Your task to perform on an android device: Open Reddit.com Image 0: 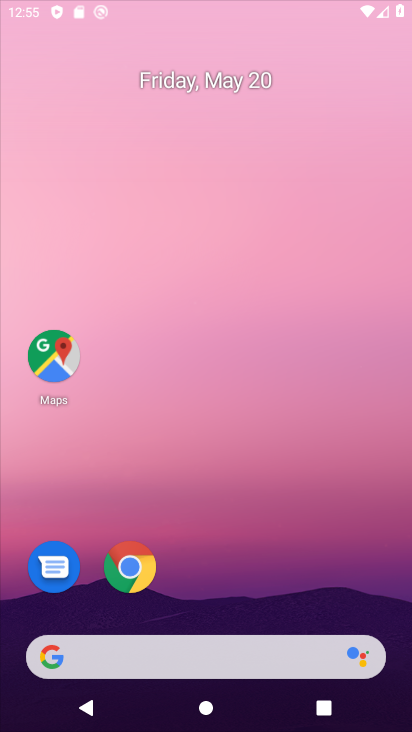
Step 0: click (260, 77)
Your task to perform on an android device: Open Reddit.com Image 1: 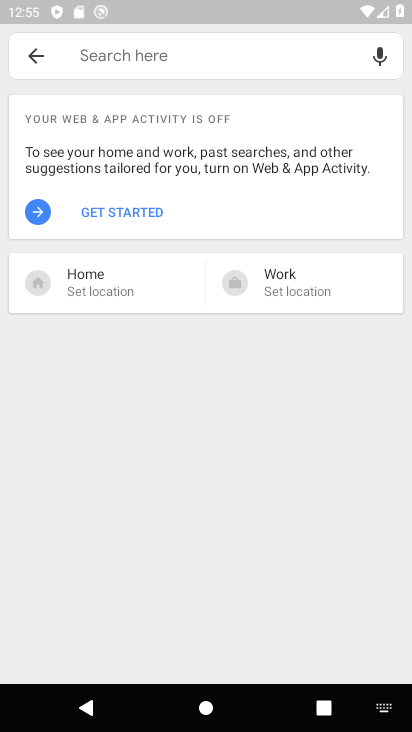
Step 1: press home button
Your task to perform on an android device: Open Reddit.com Image 2: 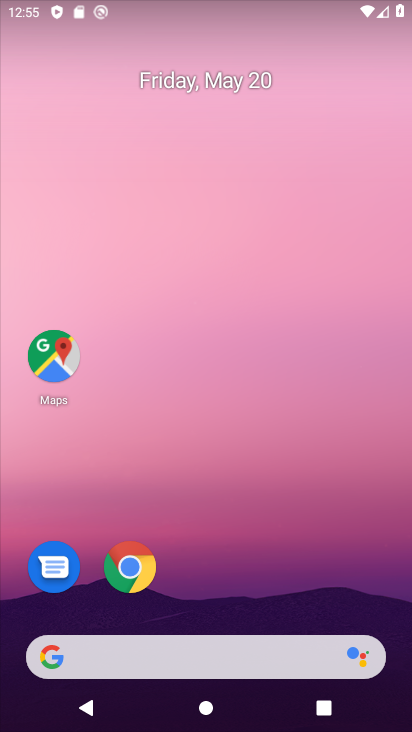
Step 2: click (157, 569)
Your task to perform on an android device: Open Reddit.com Image 3: 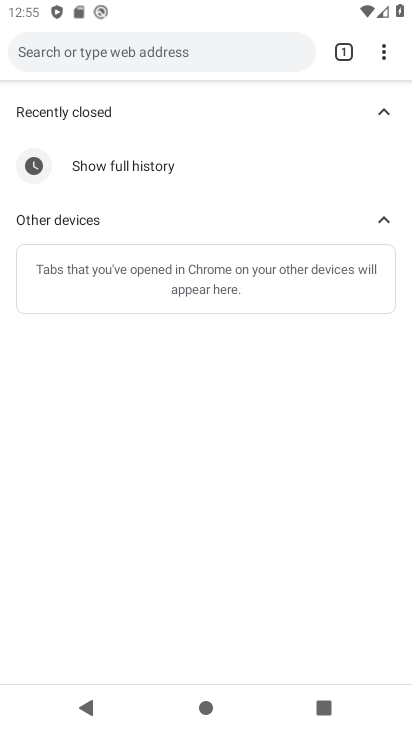
Step 3: click (180, 48)
Your task to perform on an android device: Open Reddit.com Image 4: 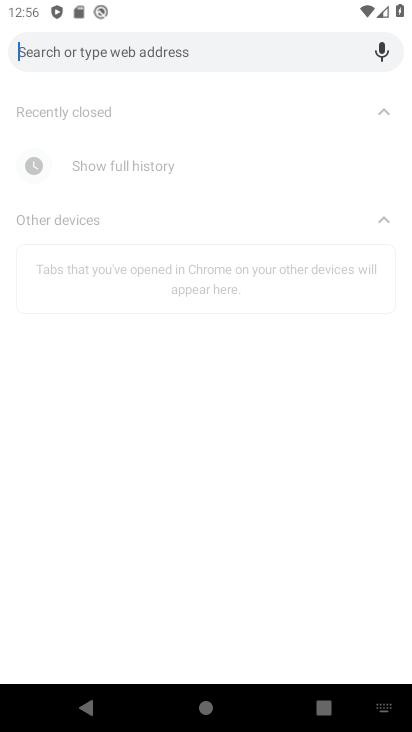
Step 4: type "Reddit.com"
Your task to perform on an android device: Open Reddit.com Image 5: 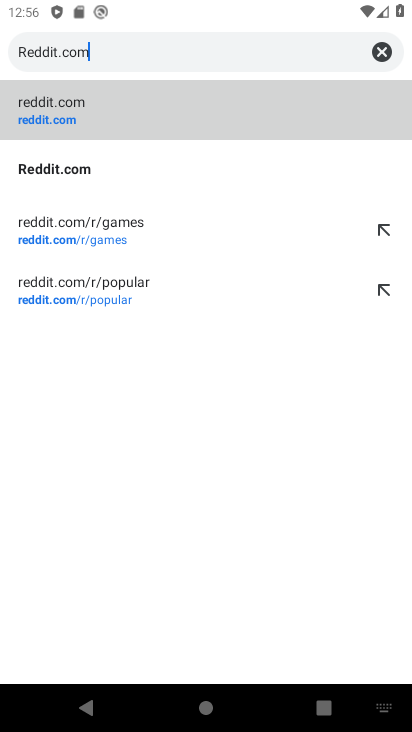
Step 5: click (33, 113)
Your task to perform on an android device: Open Reddit.com Image 6: 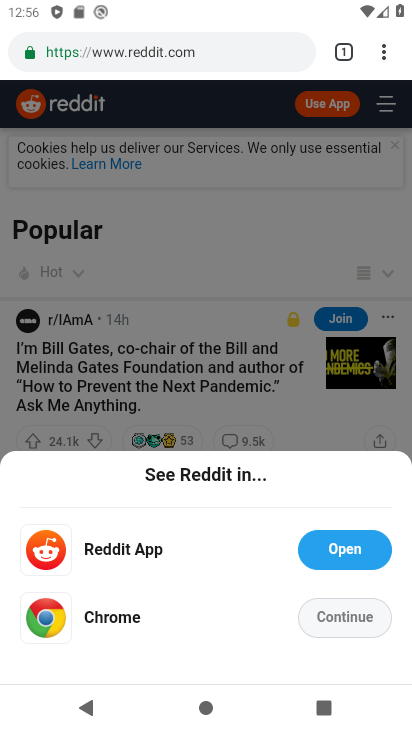
Step 6: task complete